Your task to perform on an android device: Open Amazon Image 0: 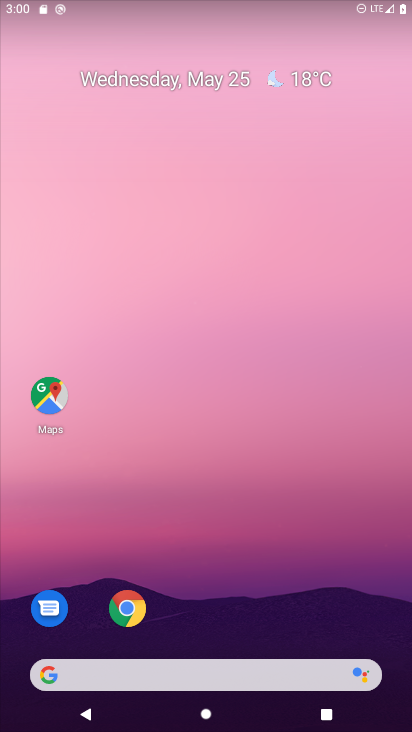
Step 0: click (129, 611)
Your task to perform on an android device: Open Amazon Image 1: 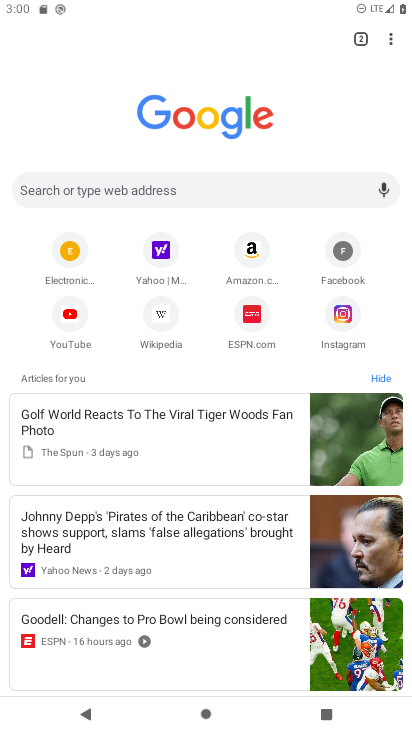
Step 1: click (250, 250)
Your task to perform on an android device: Open Amazon Image 2: 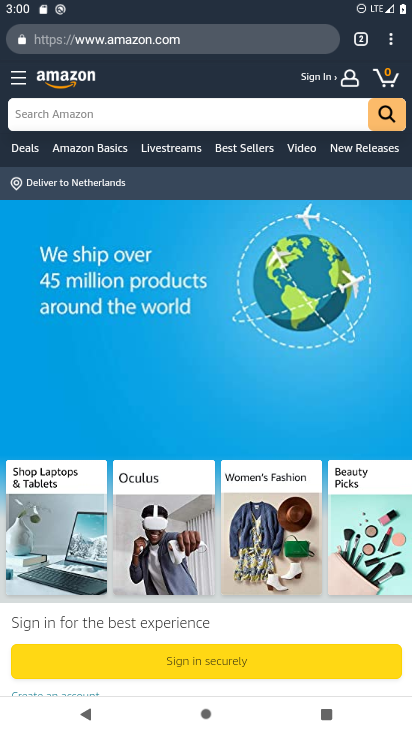
Step 2: task complete